Your task to perform on an android device: make emails show in primary in the gmail app Image 0: 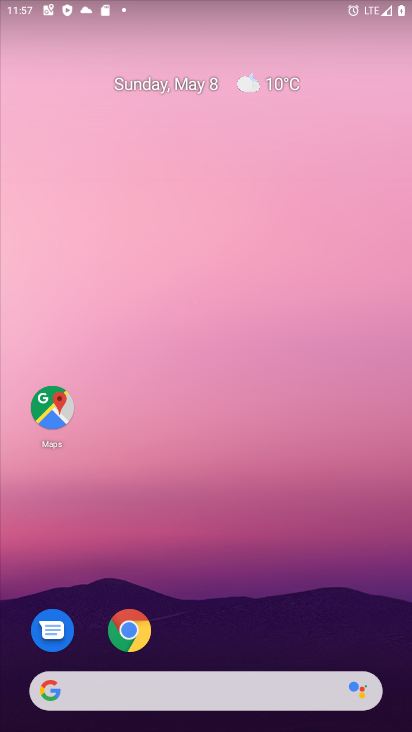
Step 0: drag from (329, 626) to (262, 22)
Your task to perform on an android device: make emails show in primary in the gmail app Image 1: 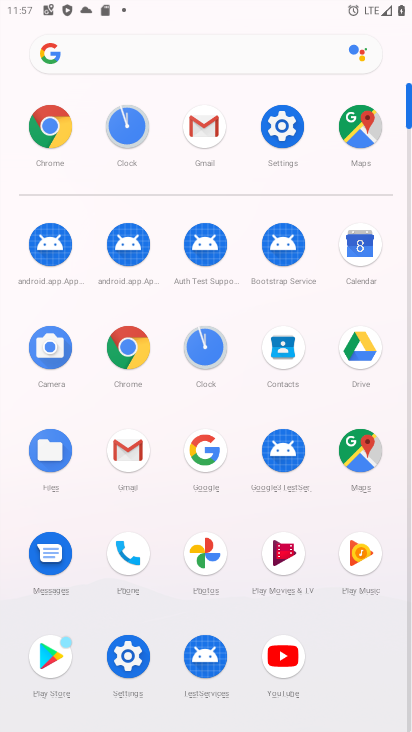
Step 1: click (132, 444)
Your task to perform on an android device: make emails show in primary in the gmail app Image 2: 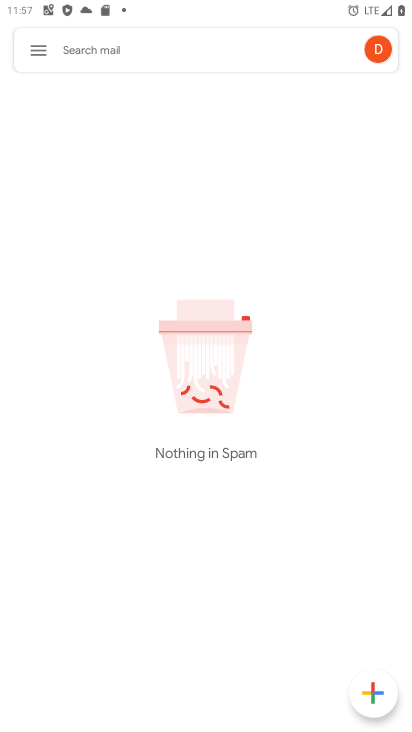
Step 2: click (24, 54)
Your task to perform on an android device: make emails show in primary in the gmail app Image 3: 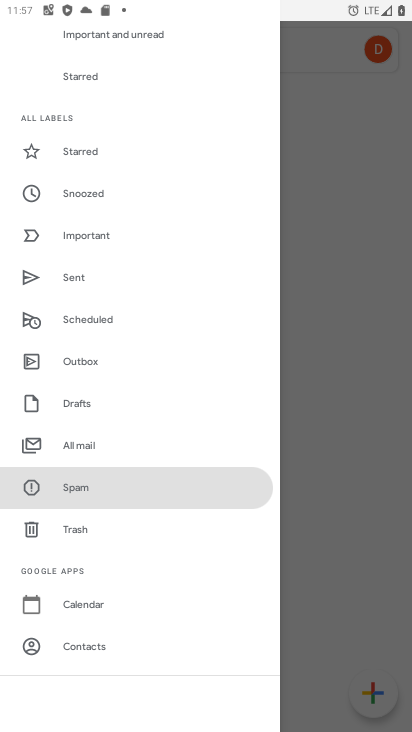
Step 3: drag from (43, 87) to (7, 575)
Your task to perform on an android device: make emails show in primary in the gmail app Image 4: 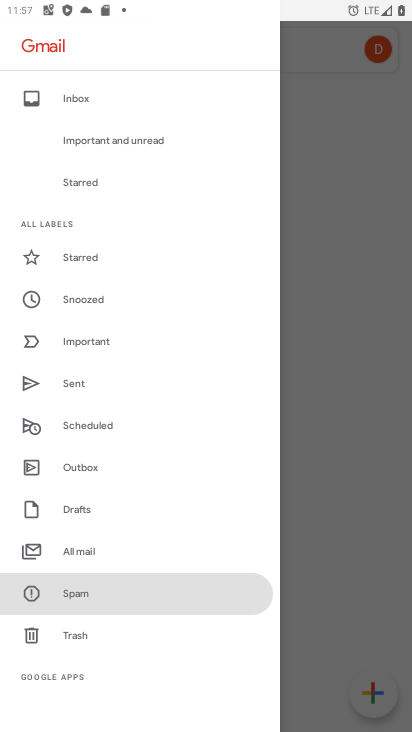
Step 4: click (99, 110)
Your task to perform on an android device: make emails show in primary in the gmail app Image 5: 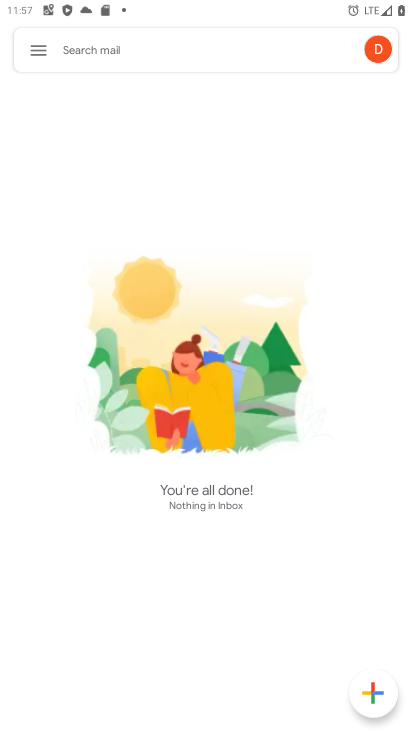
Step 5: task complete